Your task to perform on an android device: turn vacation reply on in the gmail app Image 0: 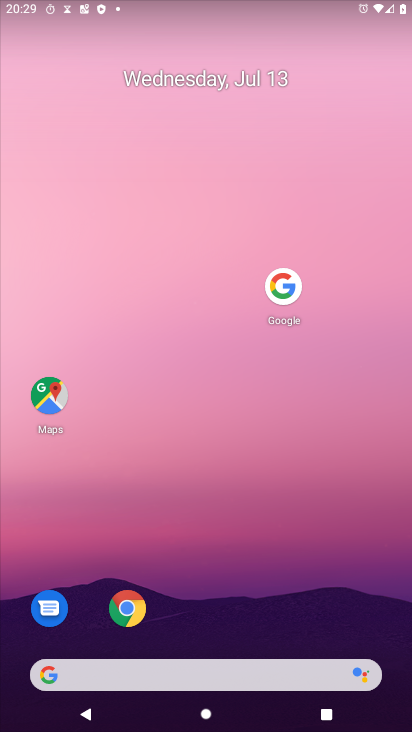
Step 0: drag from (214, 618) to (167, 35)
Your task to perform on an android device: turn vacation reply on in the gmail app Image 1: 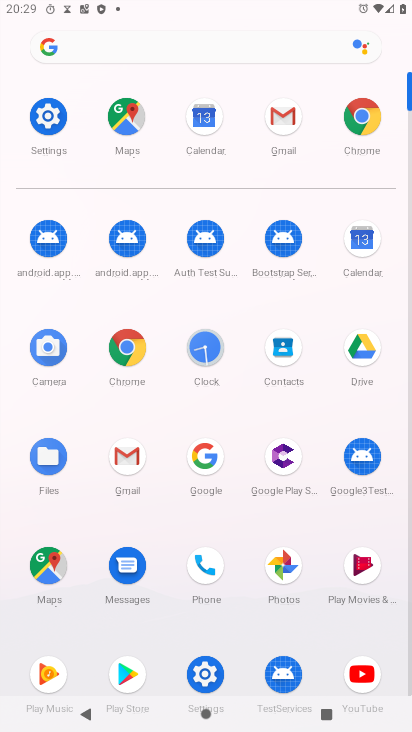
Step 1: click (131, 455)
Your task to perform on an android device: turn vacation reply on in the gmail app Image 2: 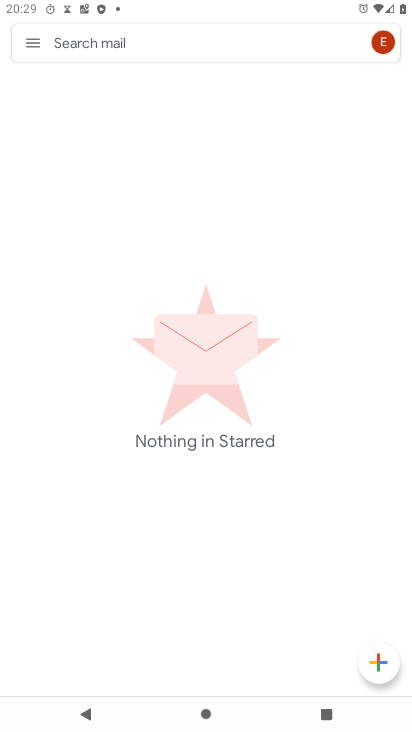
Step 2: click (26, 51)
Your task to perform on an android device: turn vacation reply on in the gmail app Image 3: 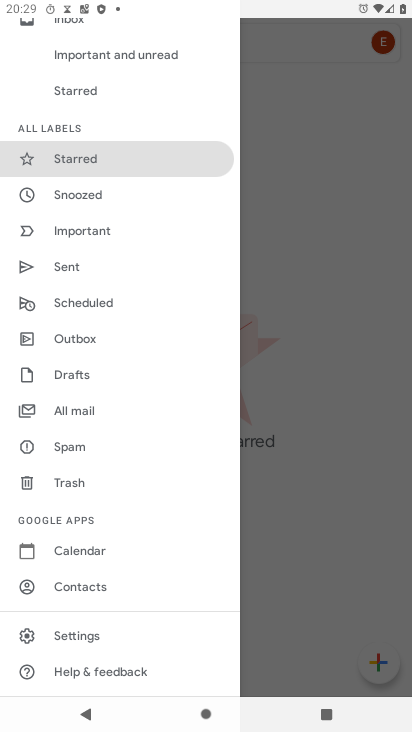
Step 3: click (102, 631)
Your task to perform on an android device: turn vacation reply on in the gmail app Image 4: 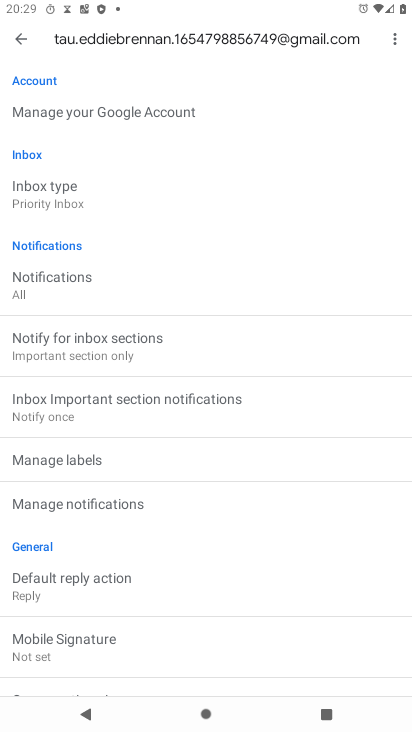
Step 4: drag from (100, 577) to (24, 192)
Your task to perform on an android device: turn vacation reply on in the gmail app Image 5: 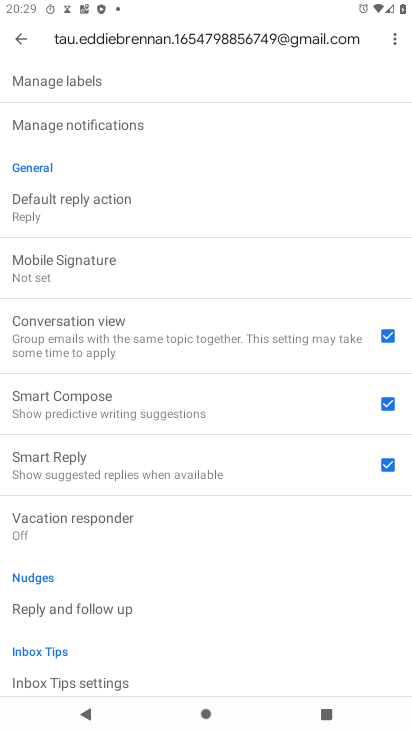
Step 5: click (119, 511)
Your task to perform on an android device: turn vacation reply on in the gmail app Image 6: 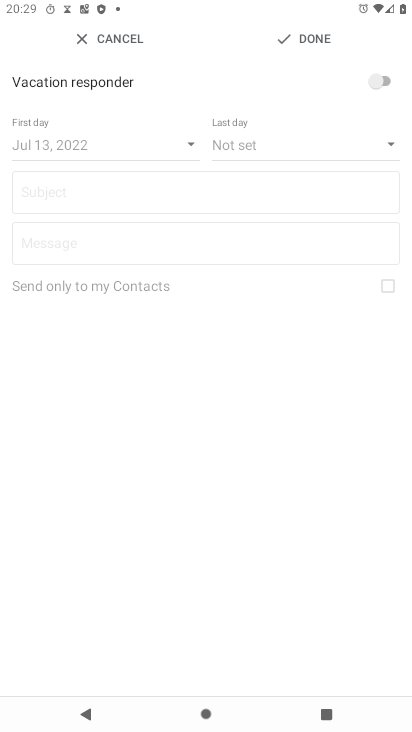
Step 6: click (367, 80)
Your task to perform on an android device: turn vacation reply on in the gmail app Image 7: 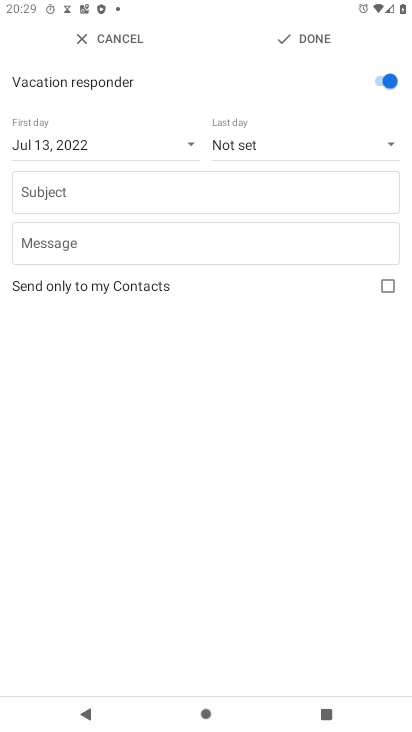
Step 7: click (304, 34)
Your task to perform on an android device: turn vacation reply on in the gmail app Image 8: 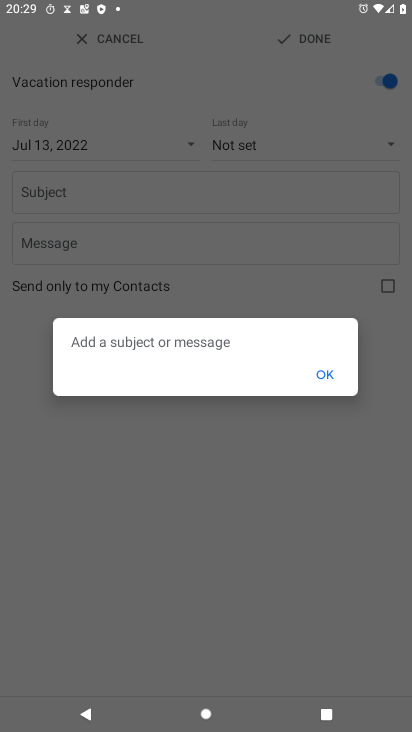
Step 8: task complete